Your task to perform on an android device: What's the weather going to be this weekend? Image 0: 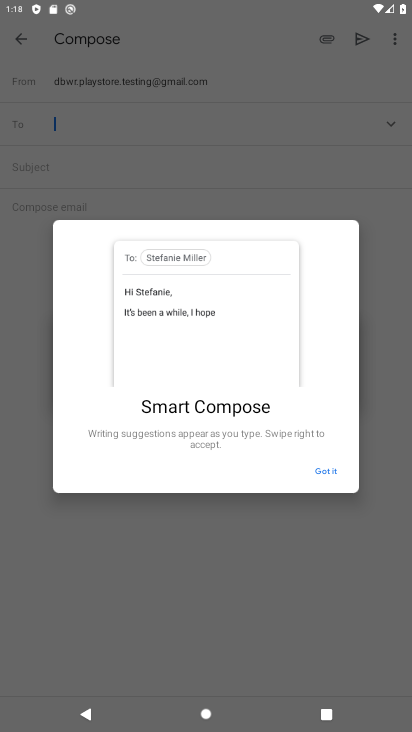
Step 0: press home button
Your task to perform on an android device: What's the weather going to be this weekend? Image 1: 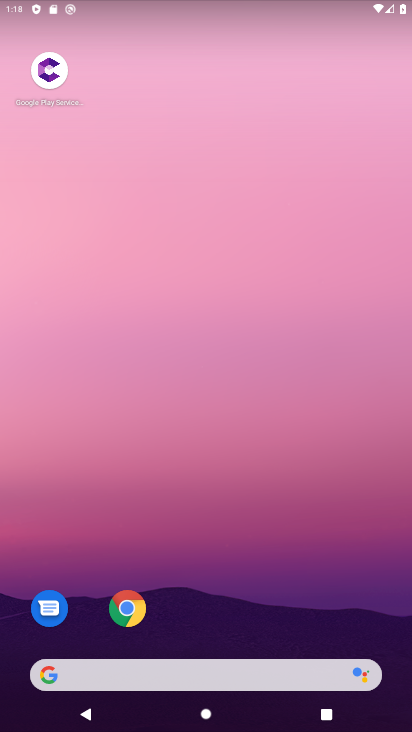
Step 1: drag from (283, 615) to (272, 49)
Your task to perform on an android device: What's the weather going to be this weekend? Image 2: 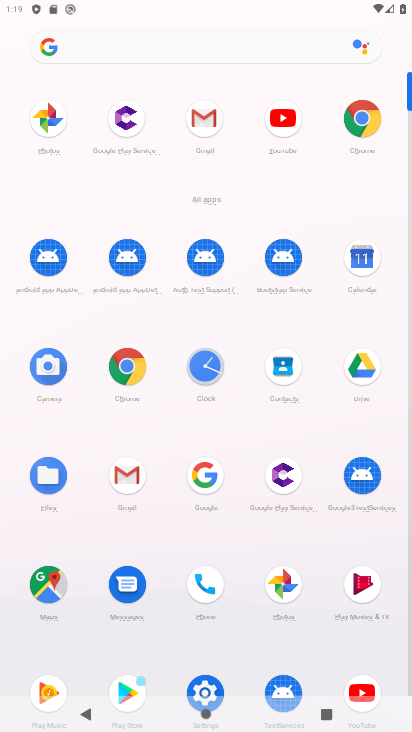
Step 2: click (369, 255)
Your task to perform on an android device: What's the weather going to be this weekend? Image 3: 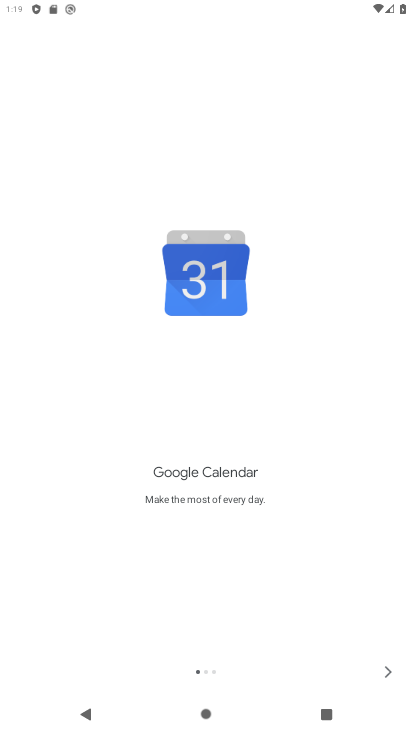
Step 3: click (388, 663)
Your task to perform on an android device: What's the weather going to be this weekend? Image 4: 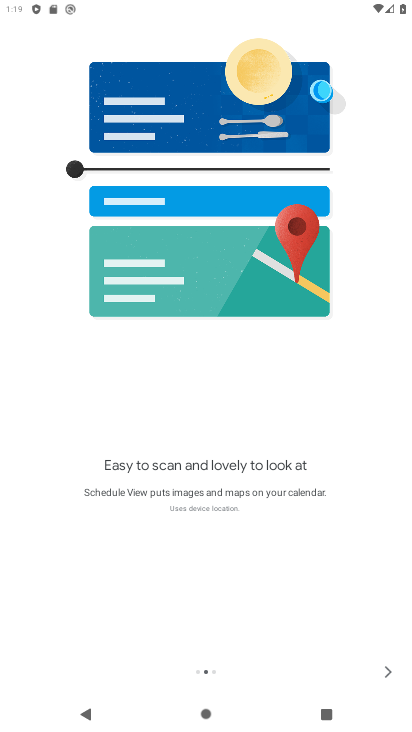
Step 4: click (388, 663)
Your task to perform on an android device: What's the weather going to be this weekend? Image 5: 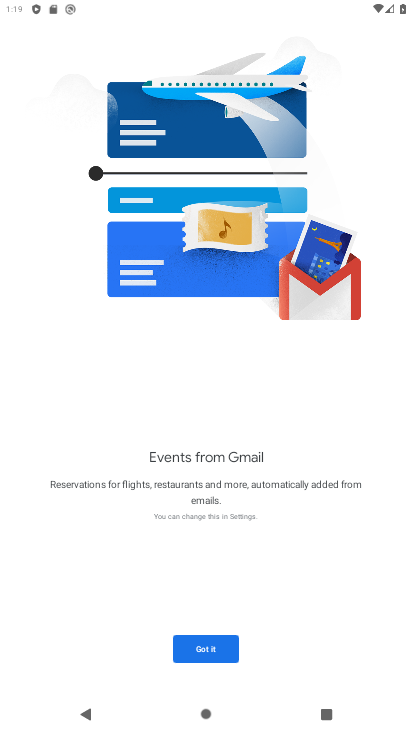
Step 5: click (193, 643)
Your task to perform on an android device: What's the weather going to be this weekend? Image 6: 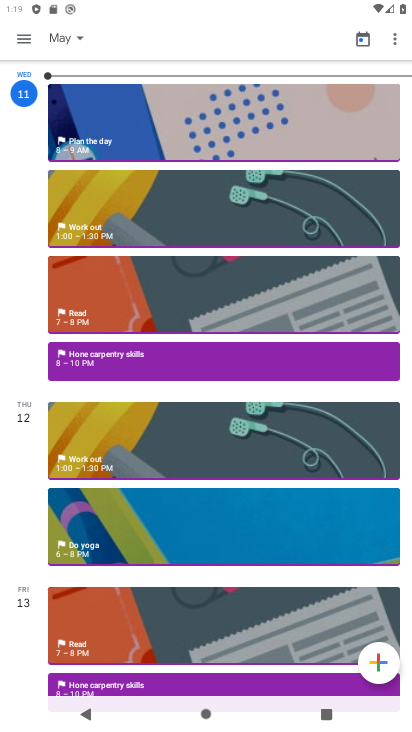
Step 6: click (29, 40)
Your task to perform on an android device: What's the weather going to be this weekend? Image 7: 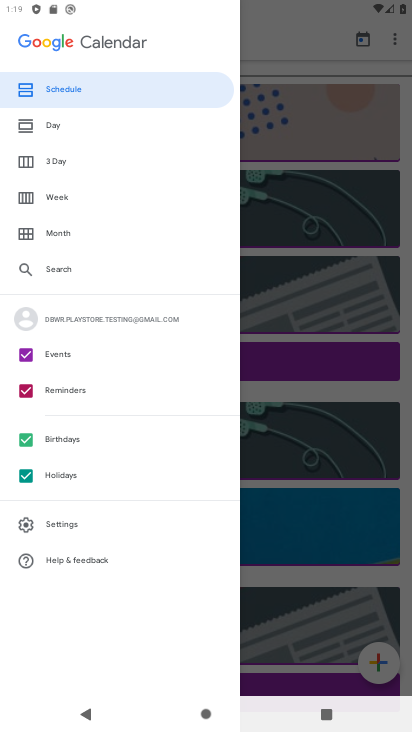
Step 7: click (62, 199)
Your task to perform on an android device: What's the weather going to be this weekend? Image 8: 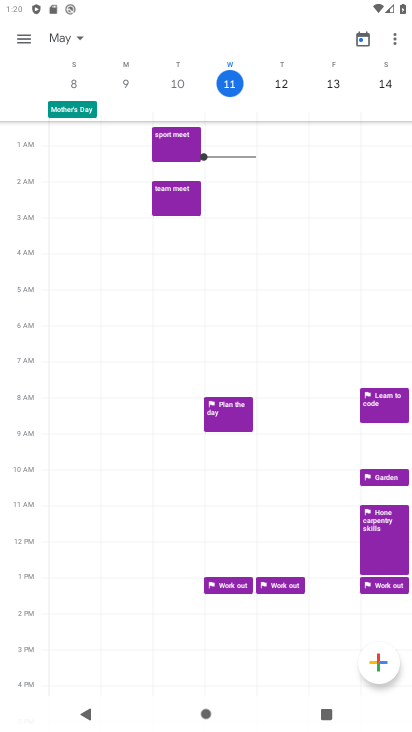
Step 8: press home button
Your task to perform on an android device: What's the weather going to be this weekend? Image 9: 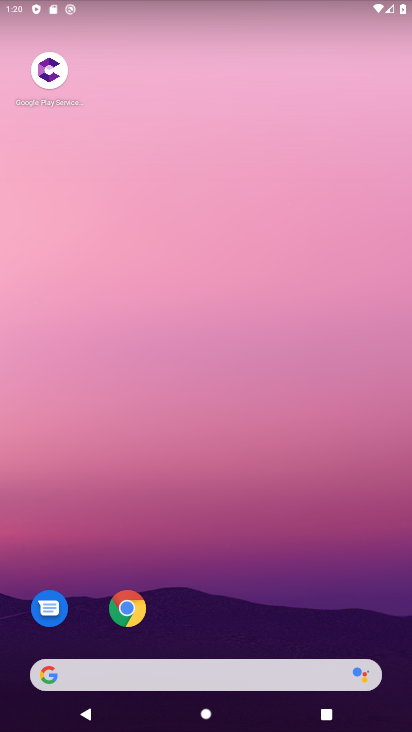
Step 9: click (134, 682)
Your task to perform on an android device: What's the weather going to be this weekend? Image 10: 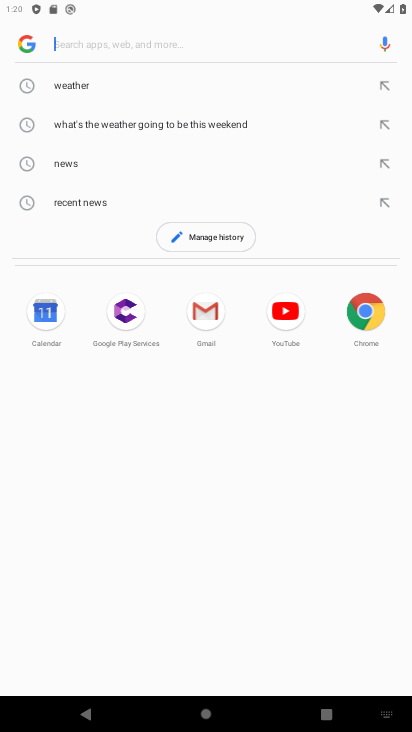
Step 10: click (128, 90)
Your task to perform on an android device: What's the weather going to be this weekend? Image 11: 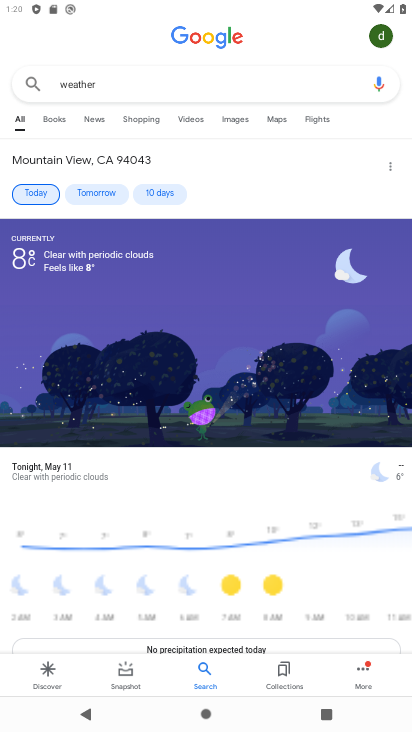
Step 11: click (156, 192)
Your task to perform on an android device: What's the weather going to be this weekend? Image 12: 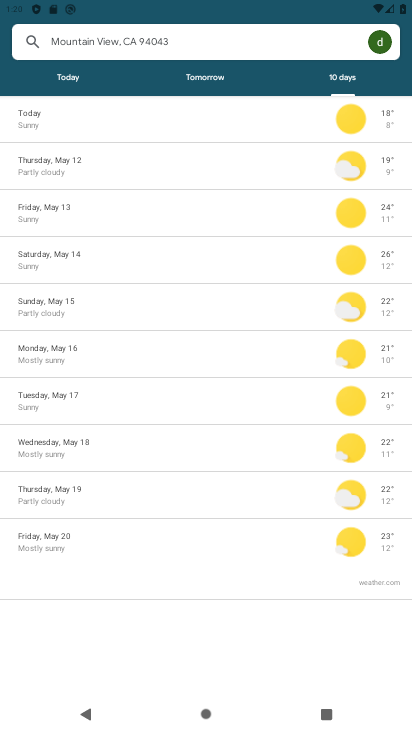
Step 12: task complete